Your task to perform on an android device: What are the best selling refrigerators at Lowes? Image 0: 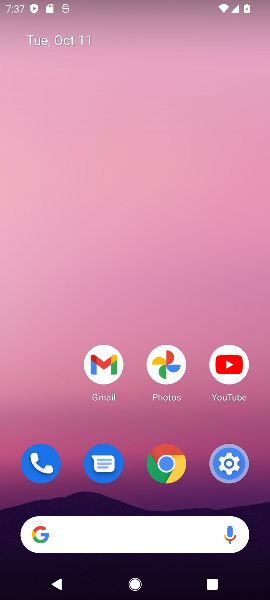
Step 0: drag from (80, 512) to (97, 127)
Your task to perform on an android device: What are the best selling refrigerators at Lowes? Image 1: 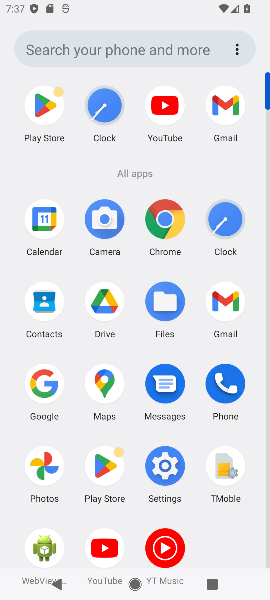
Step 1: click (46, 374)
Your task to perform on an android device: What are the best selling refrigerators at Lowes? Image 2: 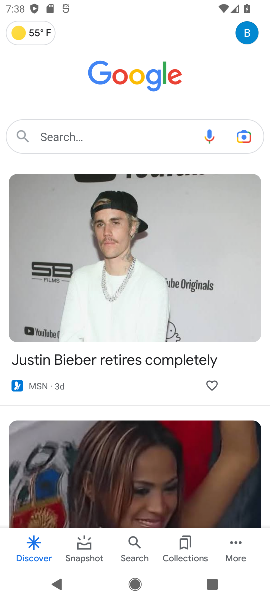
Step 2: click (115, 127)
Your task to perform on an android device: What are the best selling refrigerators at Lowes? Image 3: 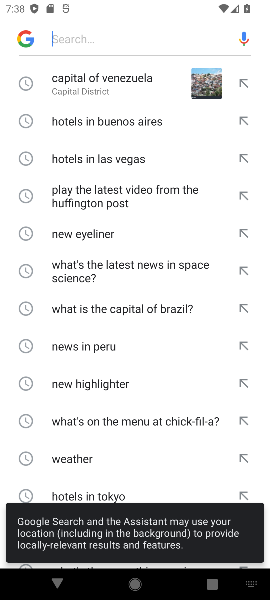
Step 3: type "What are the best selling refrigerators at Lowes? "
Your task to perform on an android device: What are the best selling refrigerators at Lowes? Image 4: 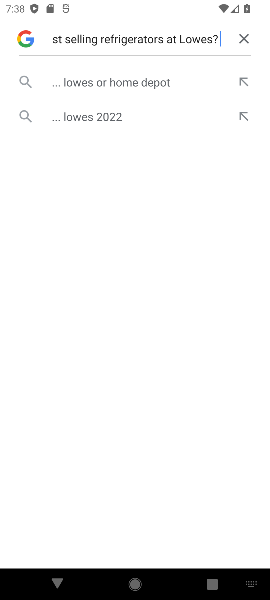
Step 4: click (168, 86)
Your task to perform on an android device: What are the best selling refrigerators at Lowes? Image 5: 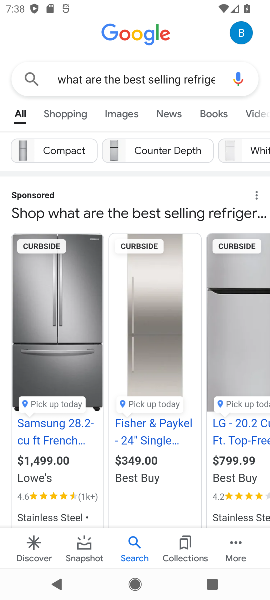
Step 5: task complete